Your task to perform on an android device: allow cookies in the chrome app Image 0: 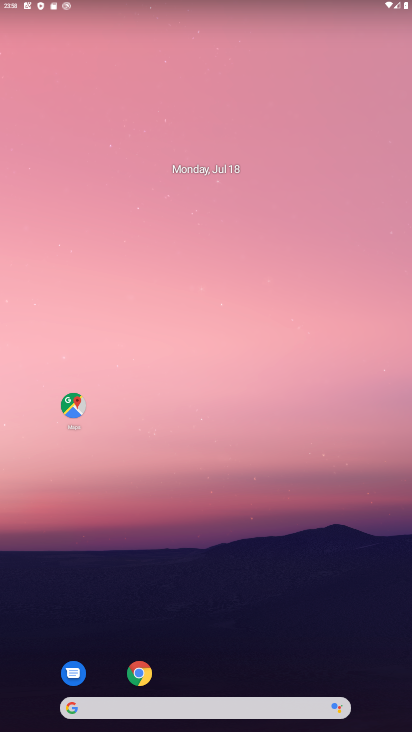
Step 0: drag from (165, 694) to (183, 215)
Your task to perform on an android device: allow cookies in the chrome app Image 1: 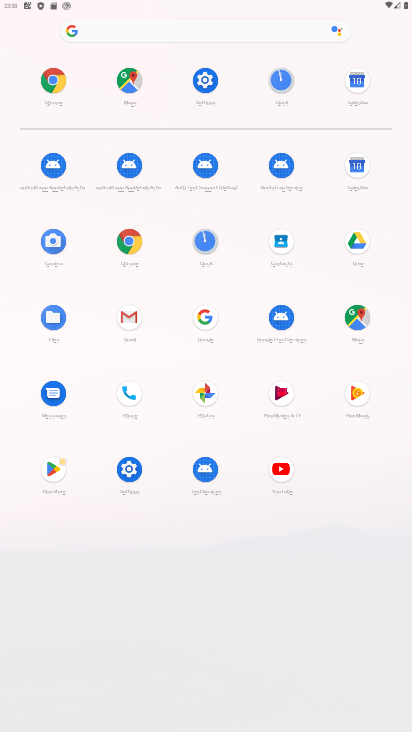
Step 1: click (57, 86)
Your task to perform on an android device: allow cookies in the chrome app Image 2: 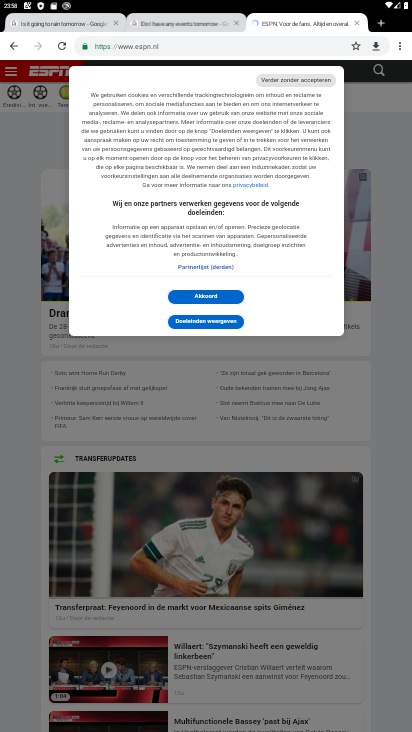
Step 2: click (400, 51)
Your task to perform on an android device: allow cookies in the chrome app Image 3: 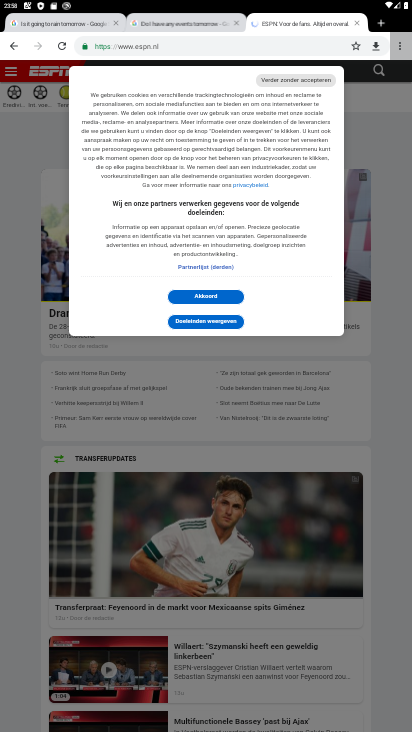
Step 3: click (403, 51)
Your task to perform on an android device: allow cookies in the chrome app Image 4: 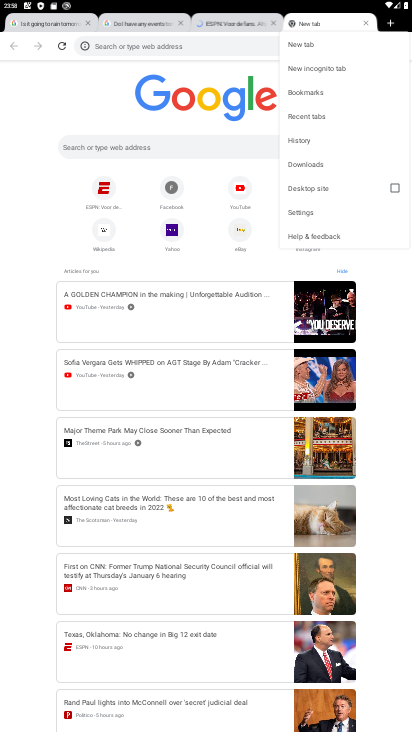
Step 4: click (304, 215)
Your task to perform on an android device: allow cookies in the chrome app Image 5: 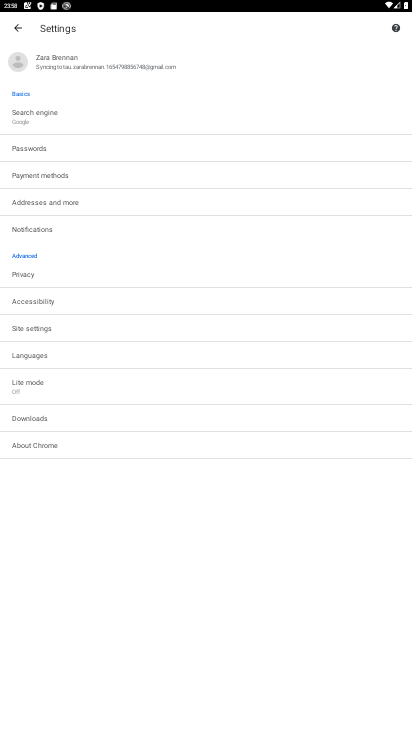
Step 5: click (49, 327)
Your task to perform on an android device: allow cookies in the chrome app Image 6: 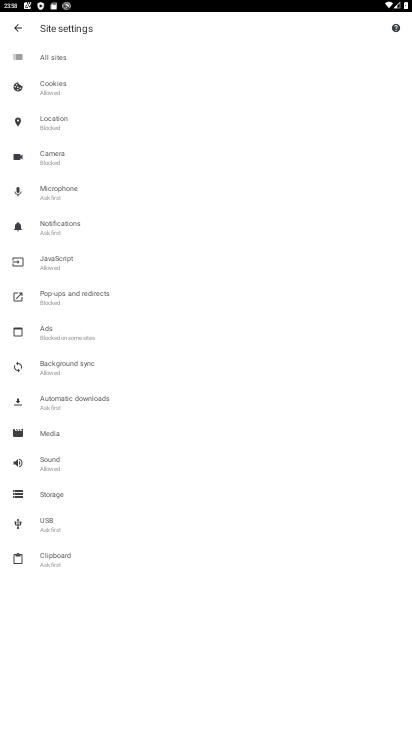
Step 6: click (55, 87)
Your task to perform on an android device: allow cookies in the chrome app Image 7: 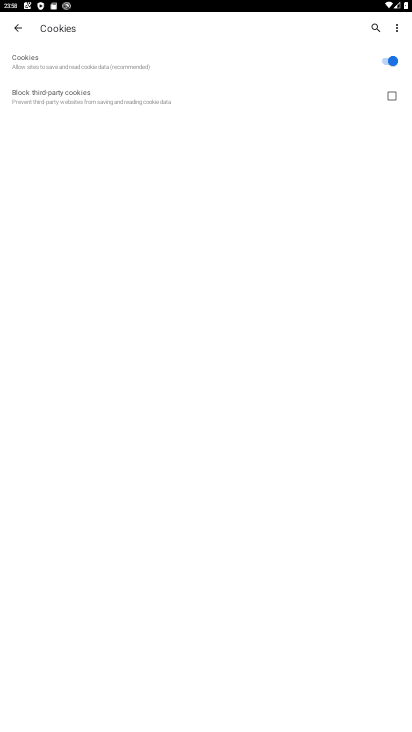
Step 7: task complete